Your task to perform on an android device: Open my contact list Image 0: 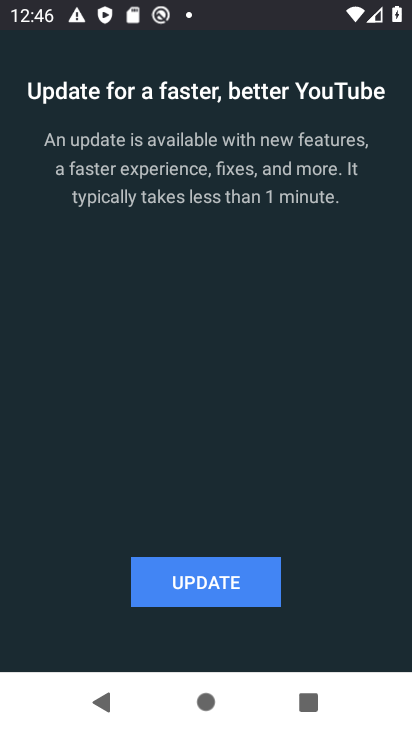
Step 0: press home button
Your task to perform on an android device: Open my contact list Image 1: 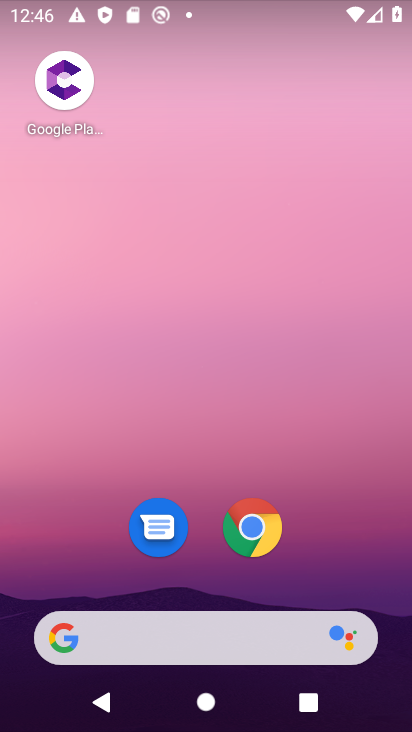
Step 1: drag from (216, 599) to (224, 0)
Your task to perform on an android device: Open my contact list Image 2: 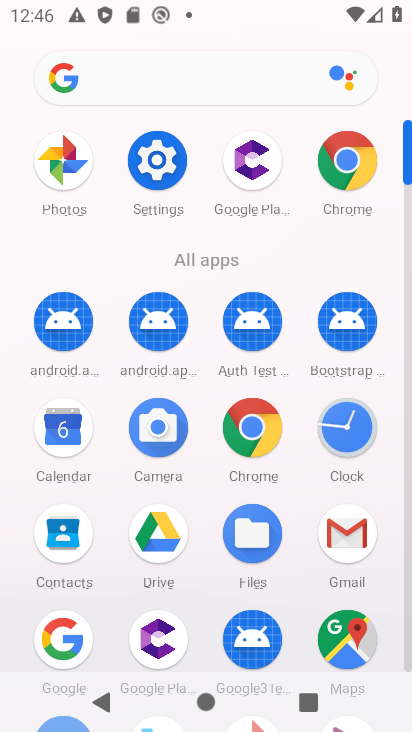
Step 2: click (57, 545)
Your task to perform on an android device: Open my contact list Image 3: 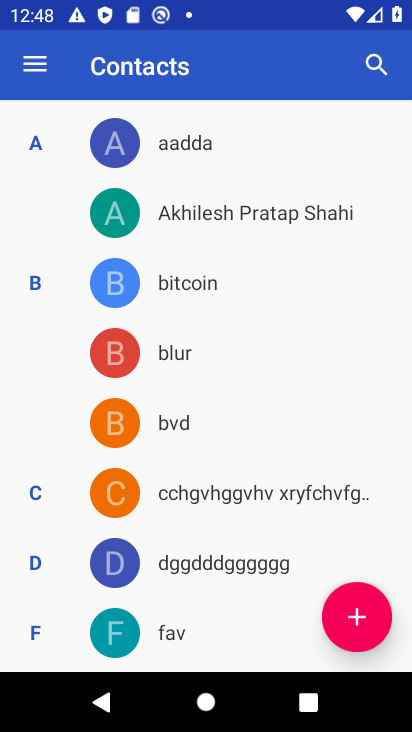
Step 3: task complete